Your task to perform on an android device: turn off sleep mode Image 0: 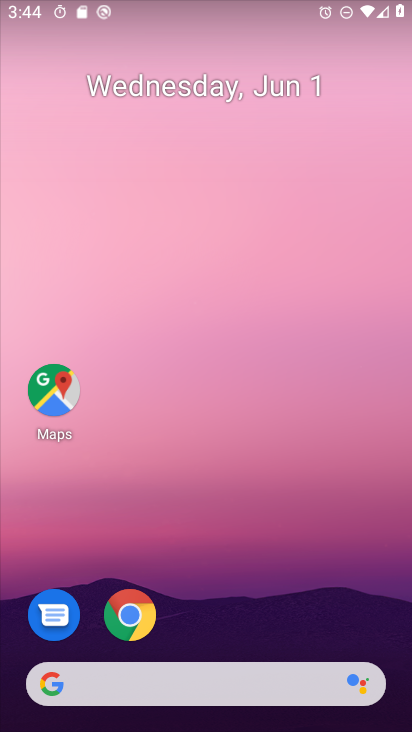
Step 0: drag from (251, 626) to (220, 207)
Your task to perform on an android device: turn off sleep mode Image 1: 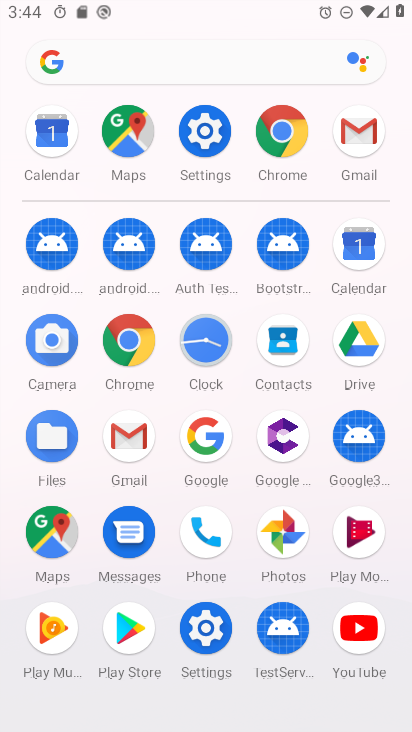
Step 1: click (203, 132)
Your task to perform on an android device: turn off sleep mode Image 2: 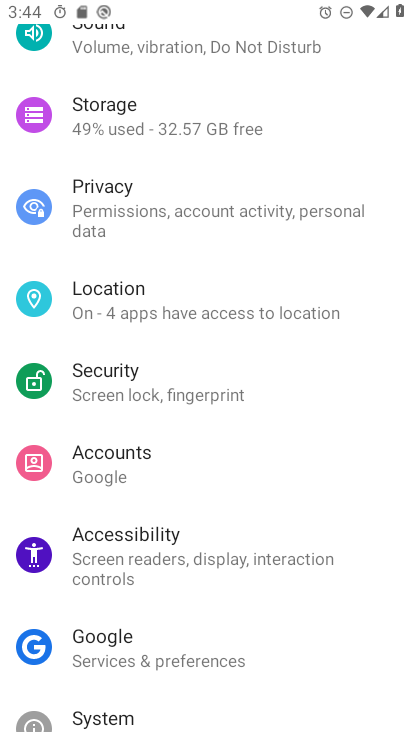
Step 2: drag from (290, 477) to (292, 210)
Your task to perform on an android device: turn off sleep mode Image 3: 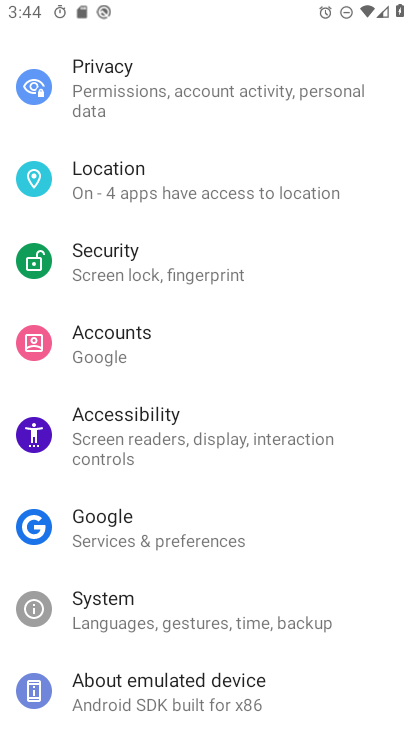
Step 3: drag from (287, 275) to (234, 609)
Your task to perform on an android device: turn off sleep mode Image 4: 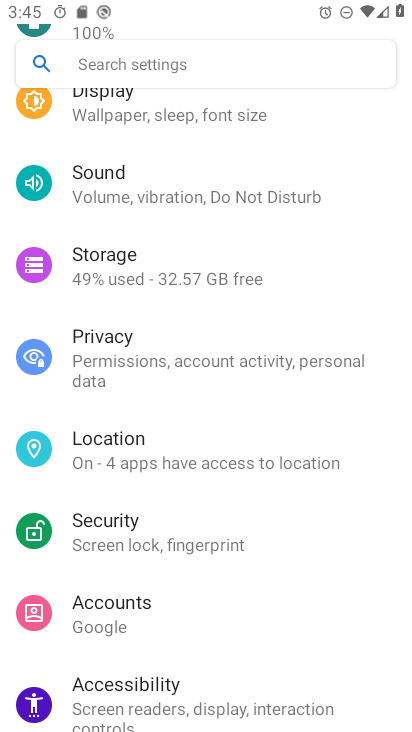
Step 4: drag from (325, 281) to (308, 442)
Your task to perform on an android device: turn off sleep mode Image 5: 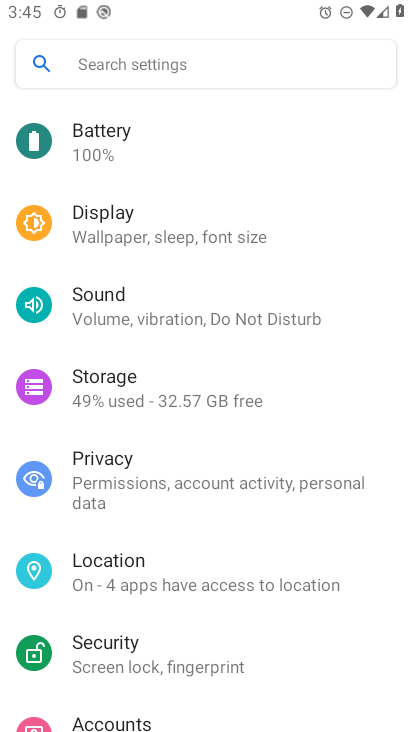
Step 5: click (191, 240)
Your task to perform on an android device: turn off sleep mode Image 6: 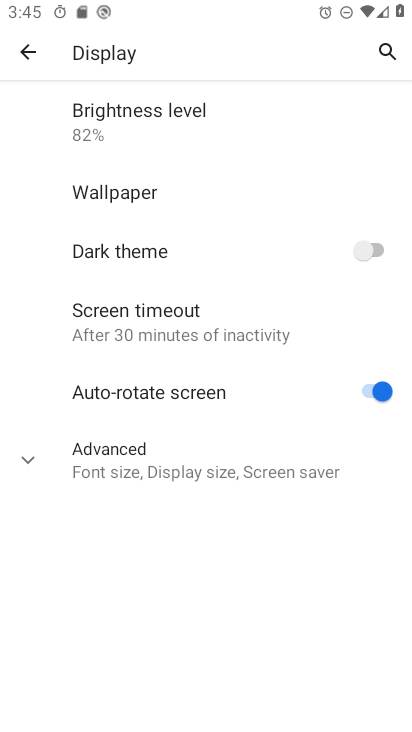
Step 6: click (192, 461)
Your task to perform on an android device: turn off sleep mode Image 7: 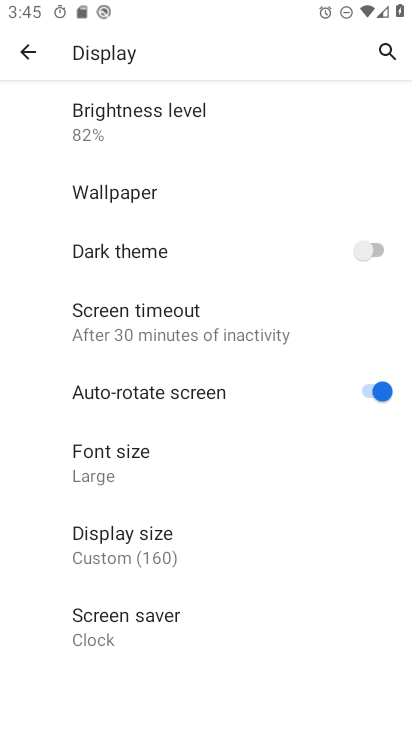
Step 7: task complete